Your task to perform on an android device: Open location settings Image 0: 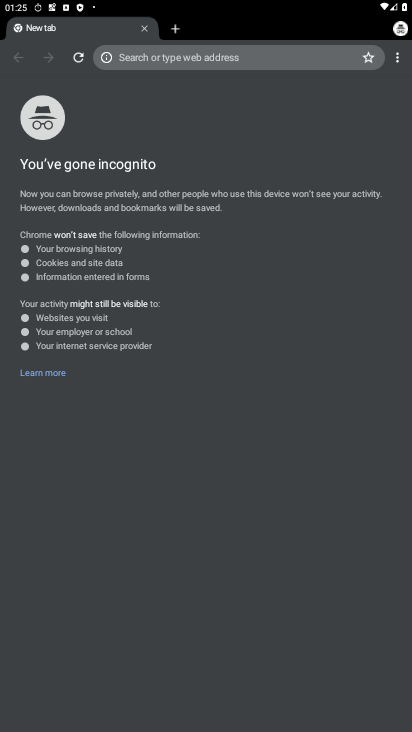
Step 0: press home button
Your task to perform on an android device: Open location settings Image 1: 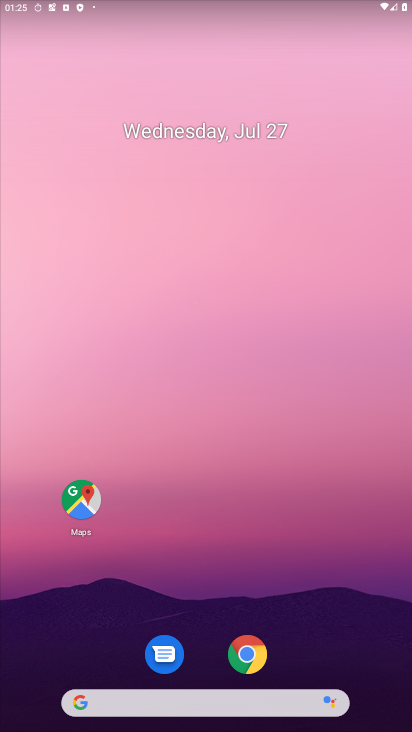
Step 1: drag from (209, 717) to (157, 107)
Your task to perform on an android device: Open location settings Image 2: 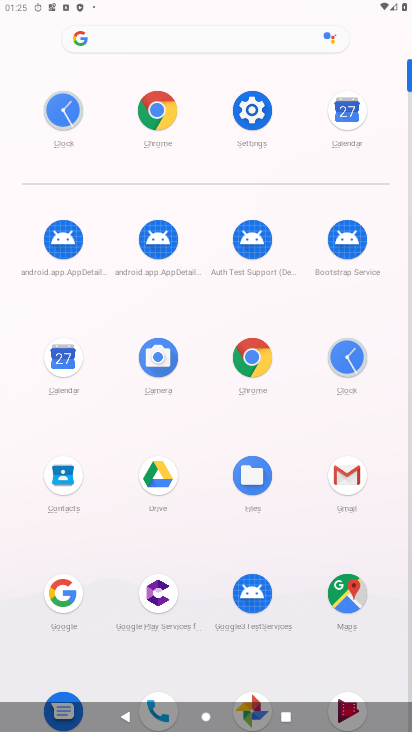
Step 2: click (247, 106)
Your task to perform on an android device: Open location settings Image 3: 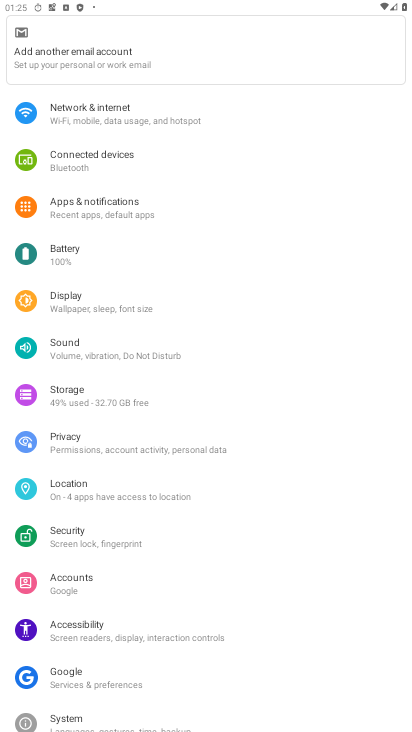
Step 3: click (118, 486)
Your task to perform on an android device: Open location settings Image 4: 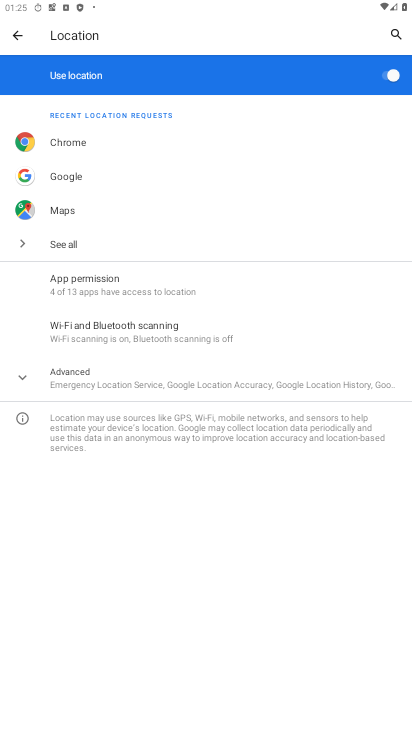
Step 4: task complete